Your task to perform on an android device: Open Chrome and go to settings Image 0: 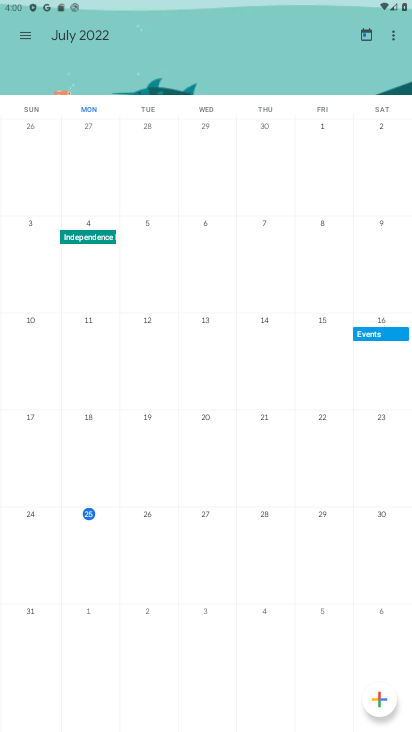
Step 0: press home button
Your task to perform on an android device: Open Chrome and go to settings Image 1: 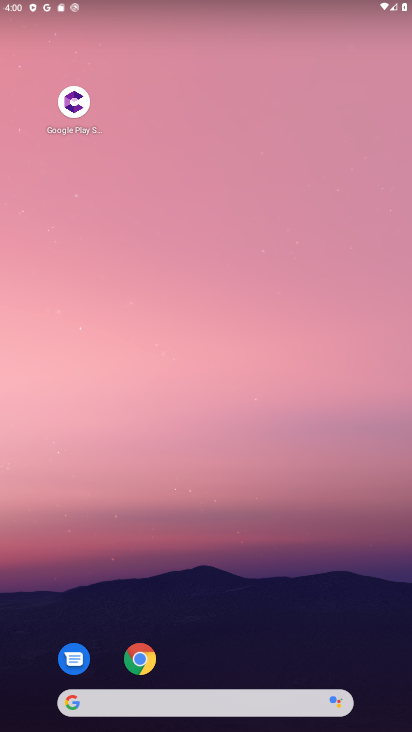
Step 1: click (142, 656)
Your task to perform on an android device: Open Chrome and go to settings Image 2: 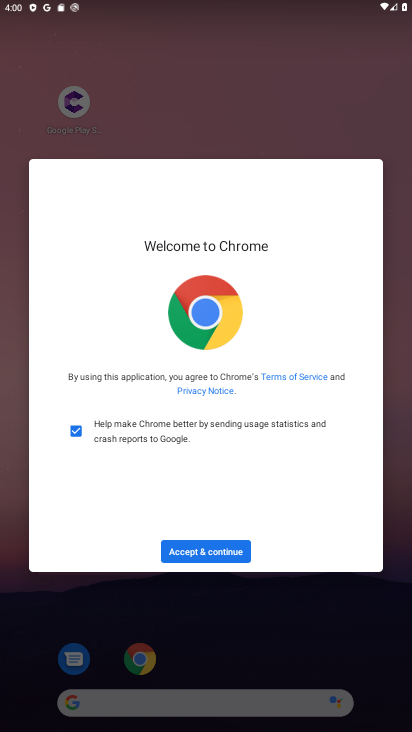
Step 2: click (204, 554)
Your task to perform on an android device: Open Chrome and go to settings Image 3: 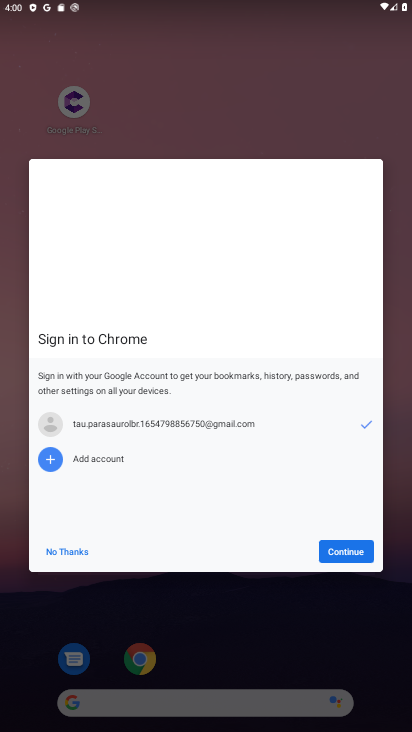
Step 3: click (347, 550)
Your task to perform on an android device: Open Chrome and go to settings Image 4: 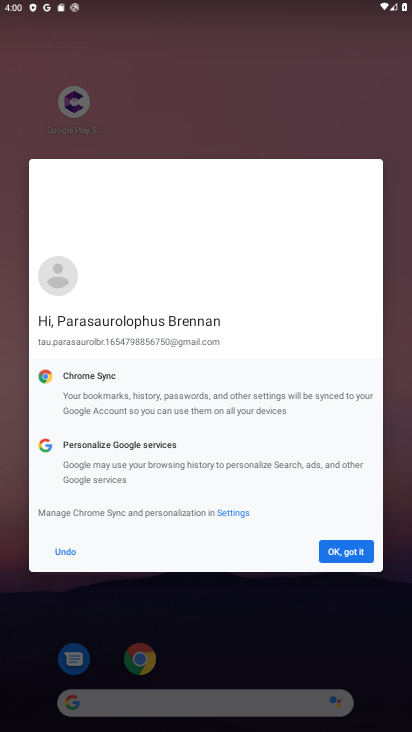
Step 4: click (345, 547)
Your task to perform on an android device: Open Chrome and go to settings Image 5: 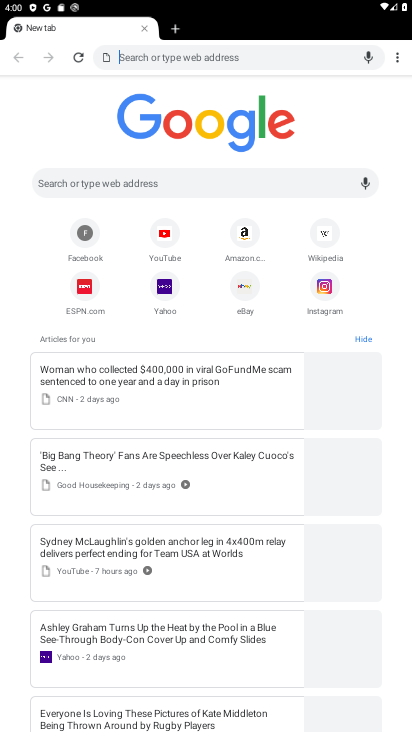
Step 5: click (397, 61)
Your task to perform on an android device: Open Chrome and go to settings Image 6: 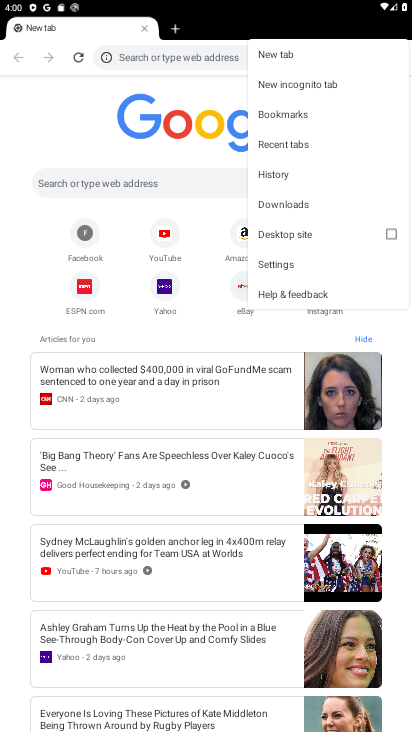
Step 6: click (282, 270)
Your task to perform on an android device: Open Chrome and go to settings Image 7: 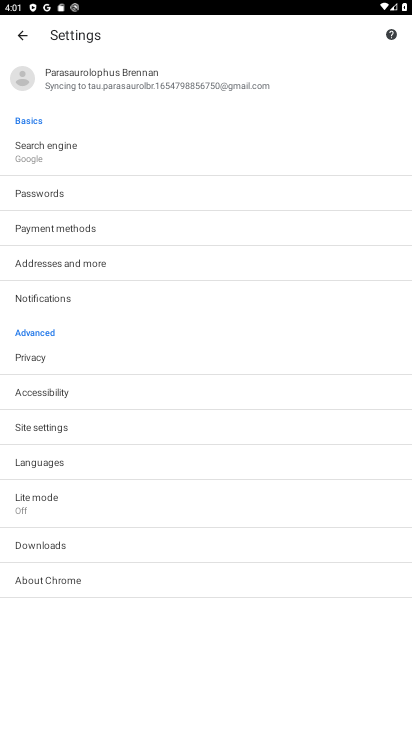
Step 7: task complete